Your task to perform on an android device: set an alarm Image 0: 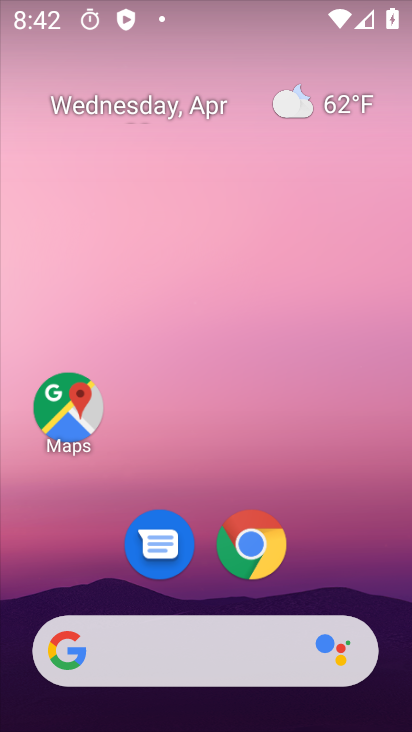
Step 0: drag from (361, 571) to (290, 82)
Your task to perform on an android device: set an alarm Image 1: 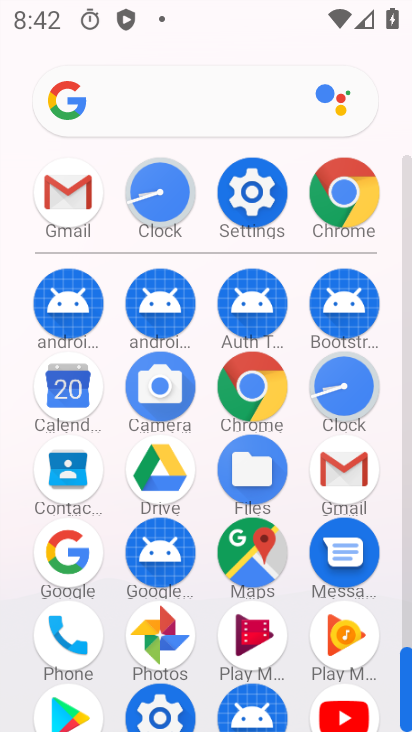
Step 1: click (355, 397)
Your task to perform on an android device: set an alarm Image 2: 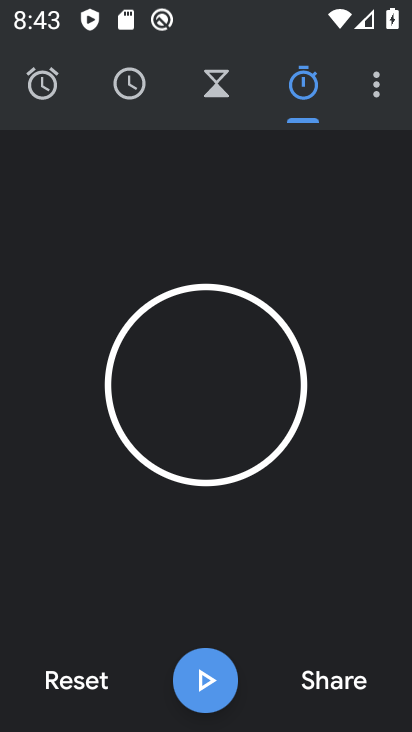
Step 2: click (35, 95)
Your task to perform on an android device: set an alarm Image 3: 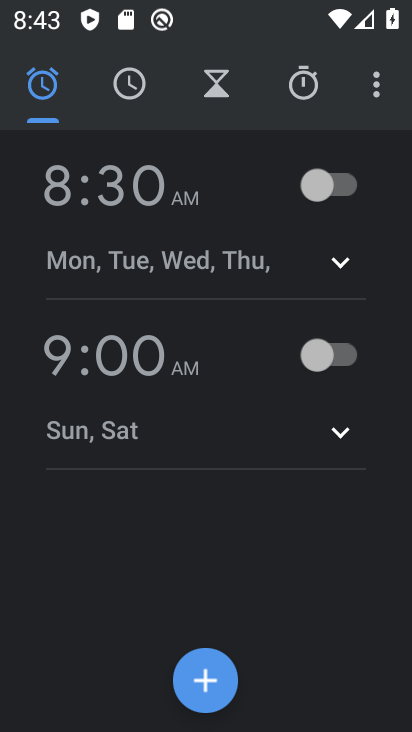
Step 3: click (192, 676)
Your task to perform on an android device: set an alarm Image 4: 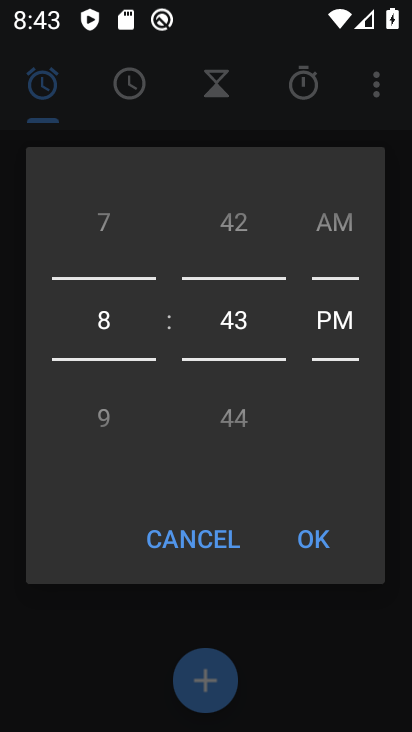
Step 4: click (320, 540)
Your task to perform on an android device: set an alarm Image 5: 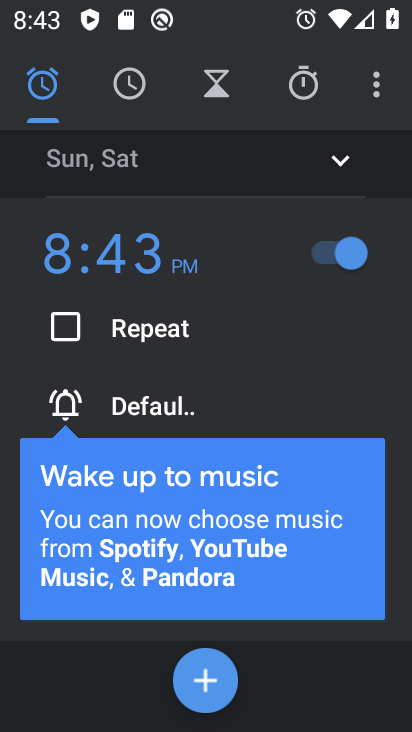
Step 5: drag from (328, 395) to (311, 295)
Your task to perform on an android device: set an alarm Image 6: 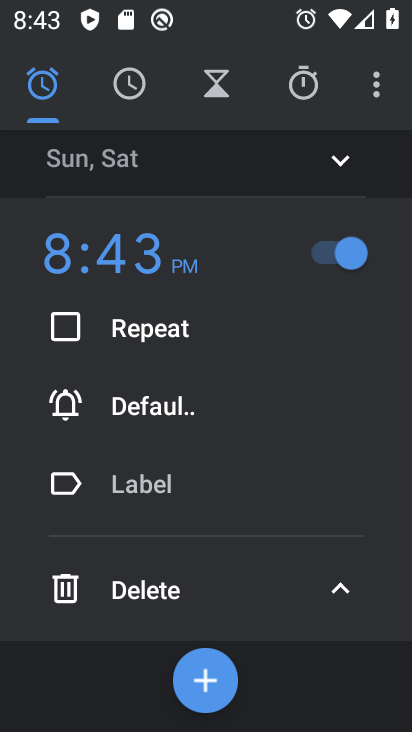
Step 6: click (349, 584)
Your task to perform on an android device: set an alarm Image 7: 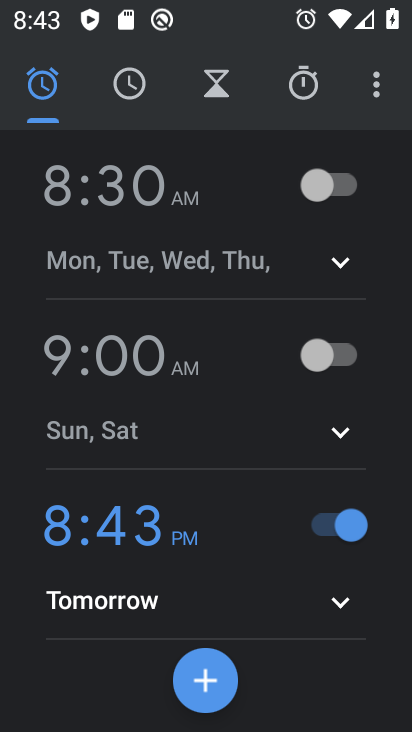
Step 7: task complete